Your task to perform on an android device: toggle improve location accuracy Image 0: 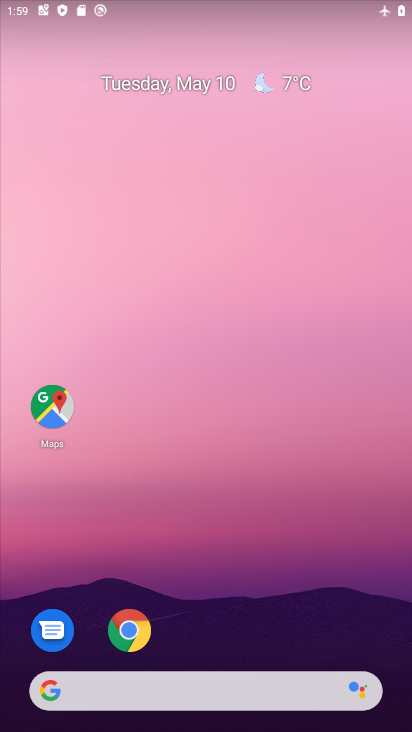
Step 0: drag from (281, 509) to (217, 12)
Your task to perform on an android device: toggle improve location accuracy Image 1: 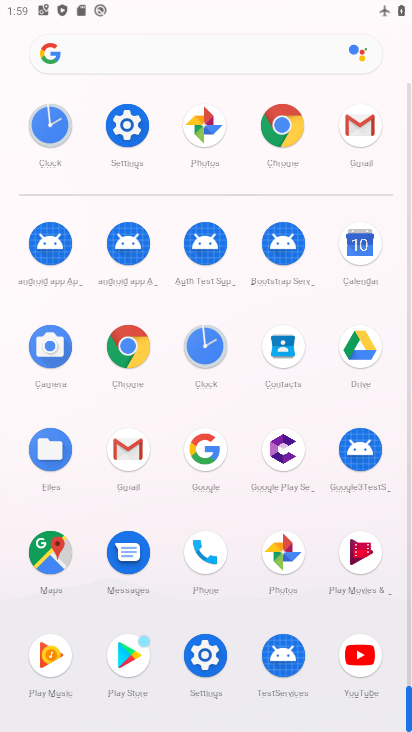
Step 1: drag from (7, 543) to (16, 260)
Your task to perform on an android device: toggle improve location accuracy Image 2: 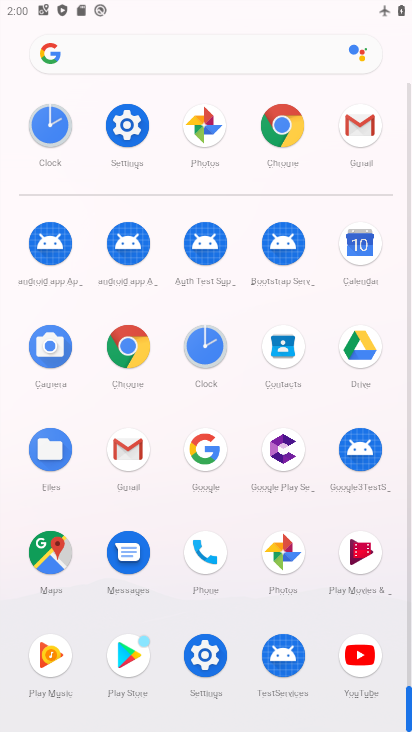
Step 2: drag from (26, 506) to (5, 228)
Your task to perform on an android device: toggle improve location accuracy Image 3: 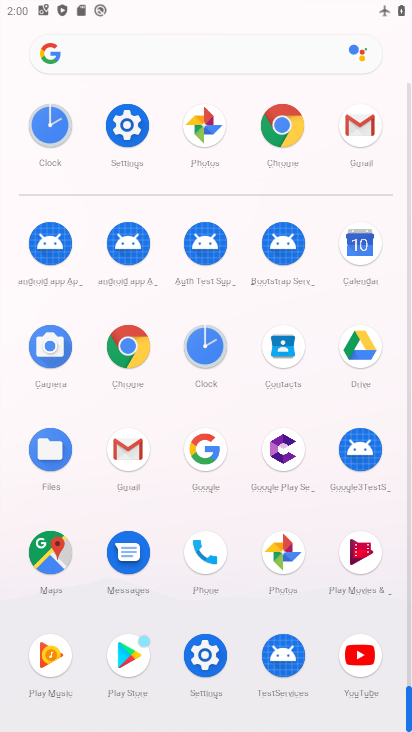
Step 3: drag from (18, 452) to (18, 216)
Your task to perform on an android device: toggle improve location accuracy Image 4: 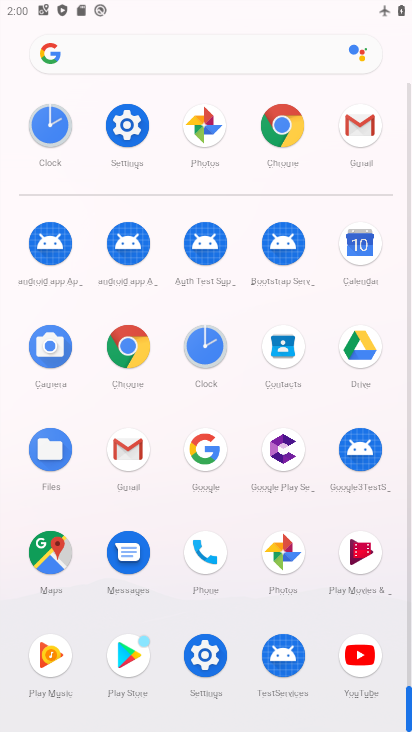
Step 4: drag from (1, 557) to (31, 351)
Your task to perform on an android device: toggle improve location accuracy Image 5: 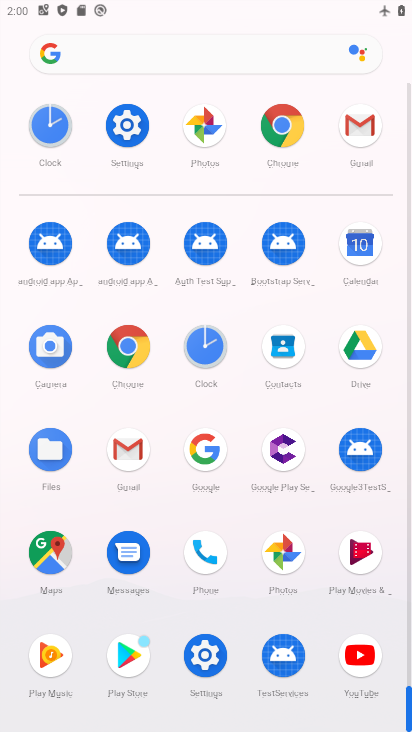
Step 5: drag from (17, 526) to (12, 264)
Your task to perform on an android device: toggle improve location accuracy Image 6: 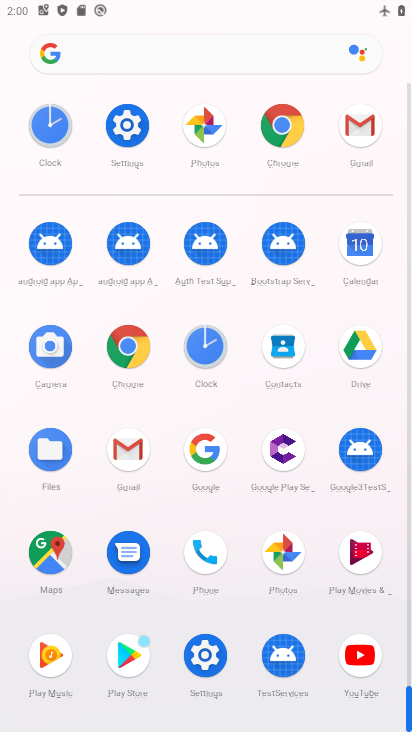
Step 6: click (201, 653)
Your task to perform on an android device: toggle improve location accuracy Image 7: 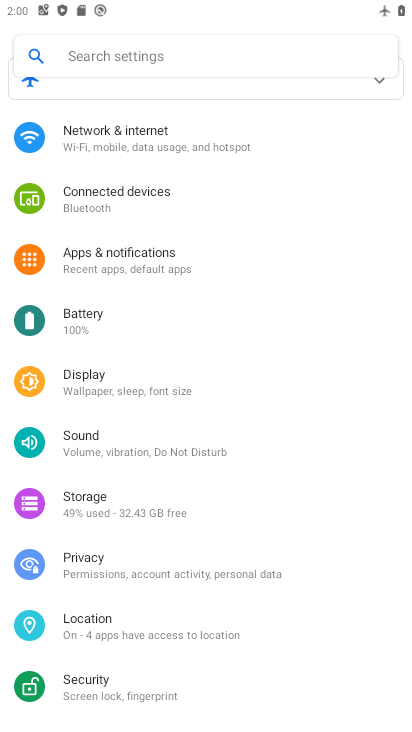
Step 7: drag from (236, 424) to (244, 64)
Your task to perform on an android device: toggle improve location accuracy Image 8: 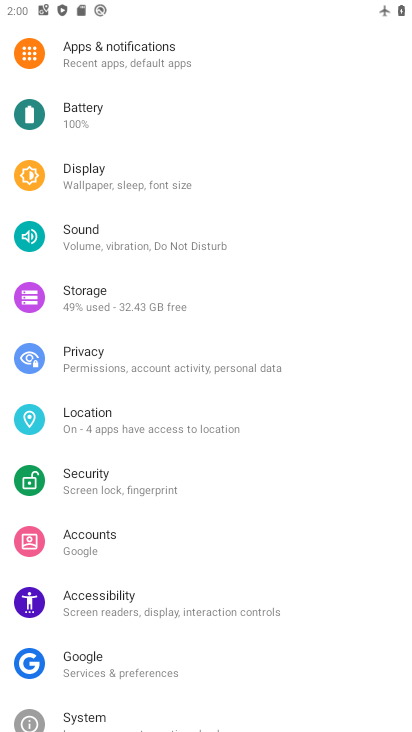
Step 8: drag from (215, 389) to (215, 125)
Your task to perform on an android device: toggle improve location accuracy Image 9: 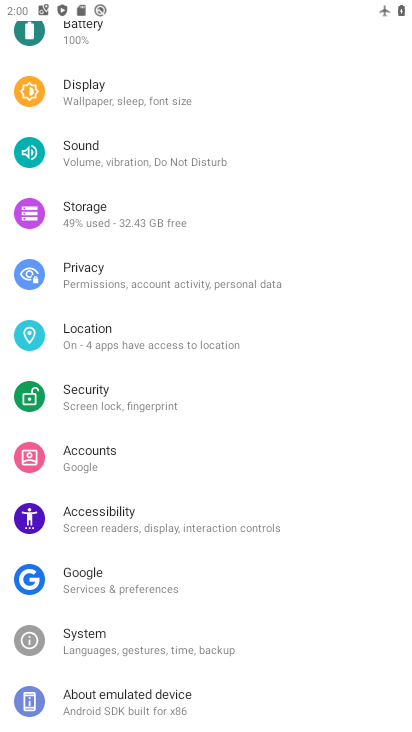
Step 9: drag from (193, 487) to (212, 103)
Your task to perform on an android device: toggle improve location accuracy Image 10: 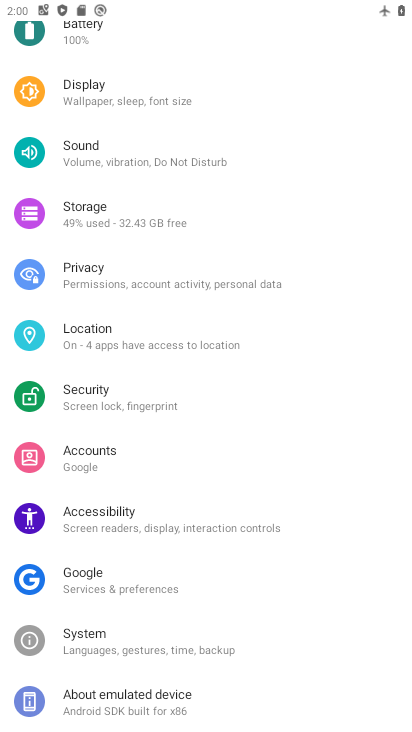
Step 10: drag from (190, 442) to (207, 148)
Your task to perform on an android device: toggle improve location accuracy Image 11: 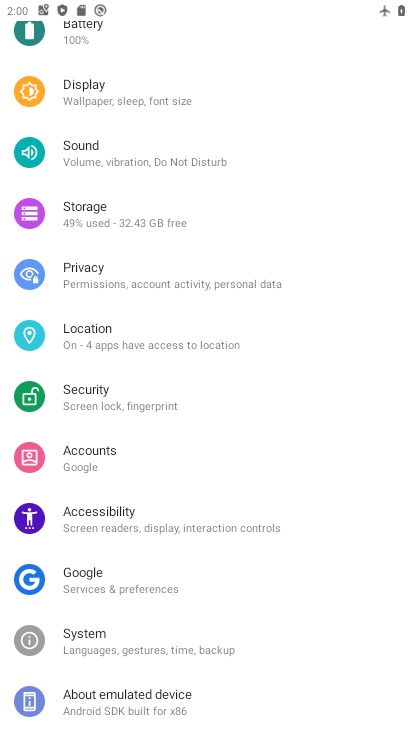
Step 11: drag from (199, 456) to (199, 76)
Your task to perform on an android device: toggle improve location accuracy Image 12: 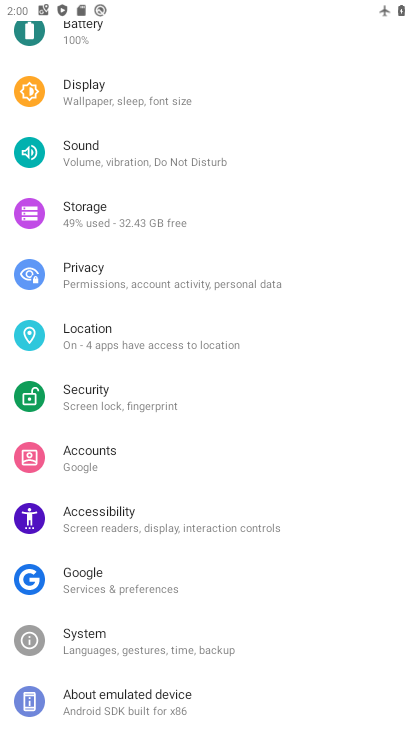
Step 12: click (212, 221)
Your task to perform on an android device: toggle improve location accuracy Image 13: 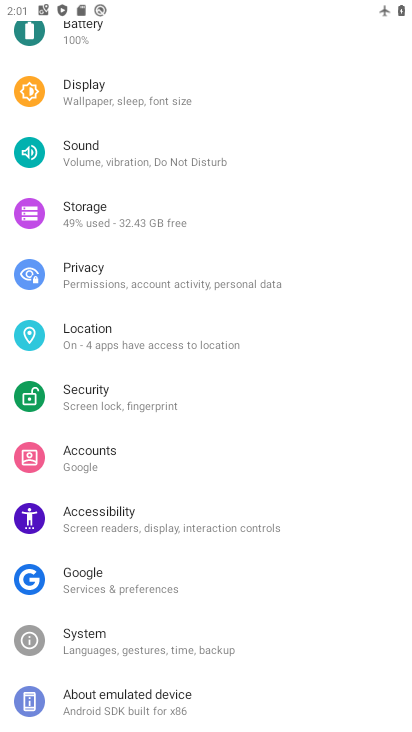
Step 13: click (104, 339)
Your task to perform on an android device: toggle improve location accuracy Image 14: 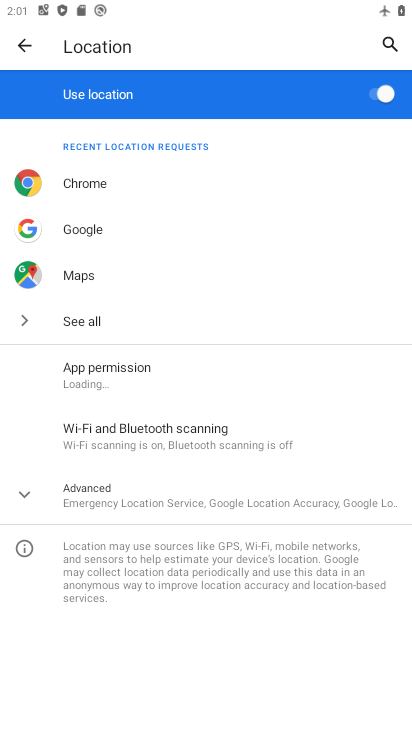
Step 14: click (43, 494)
Your task to perform on an android device: toggle improve location accuracy Image 15: 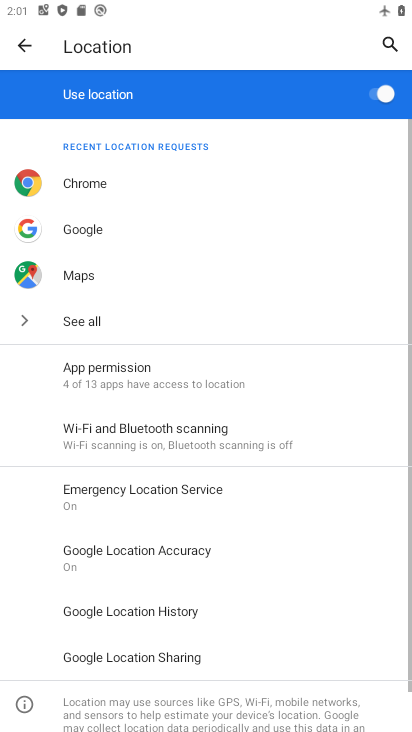
Step 15: drag from (240, 590) to (259, 249)
Your task to perform on an android device: toggle improve location accuracy Image 16: 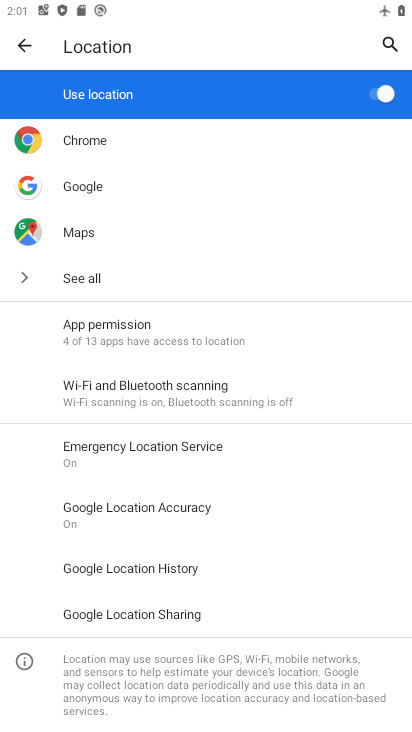
Step 16: click (201, 506)
Your task to perform on an android device: toggle improve location accuracy Image 17: 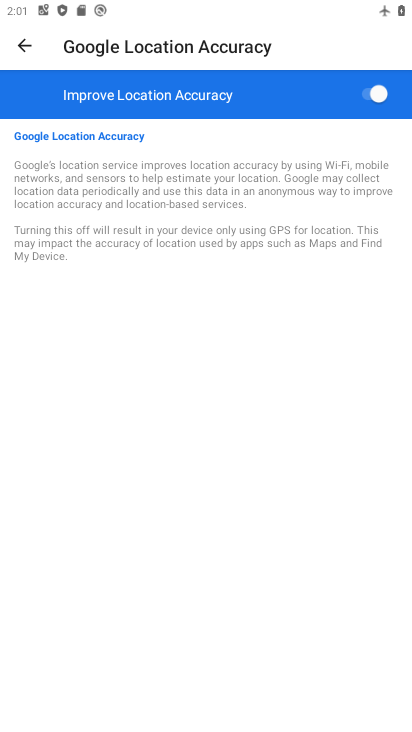
Step 17: click (380, 97)
Your task to perform on an android device: toggle improve location accuracy Image 18: 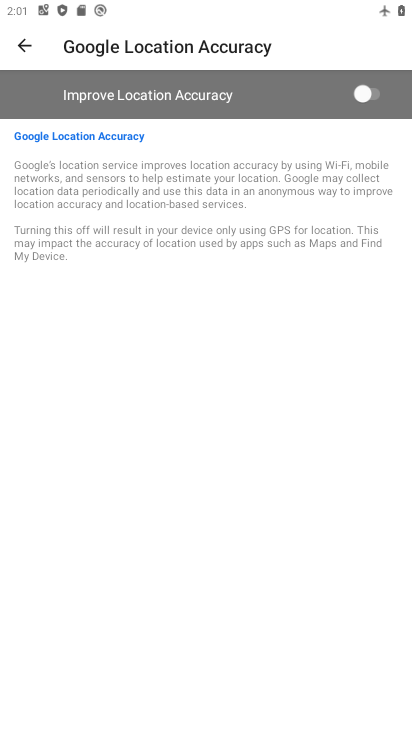
Step 18: task complete